Your task to perform on an android device: delete browsing data in the chrome app Image 0: 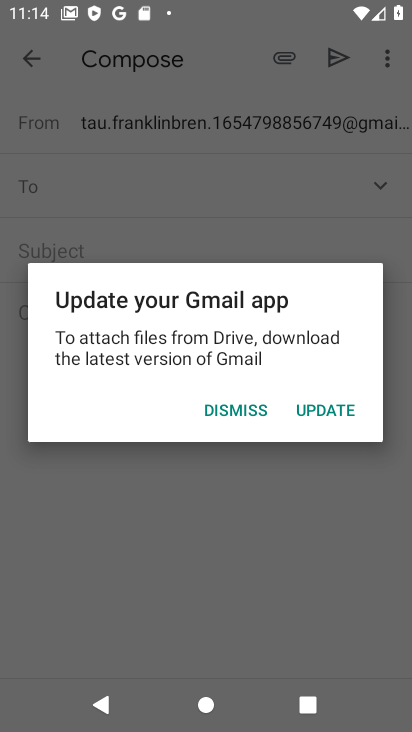
Step 0: click (244, 419)
Your task to perform on an android device: delete browsing data in the chrome app Image 1: 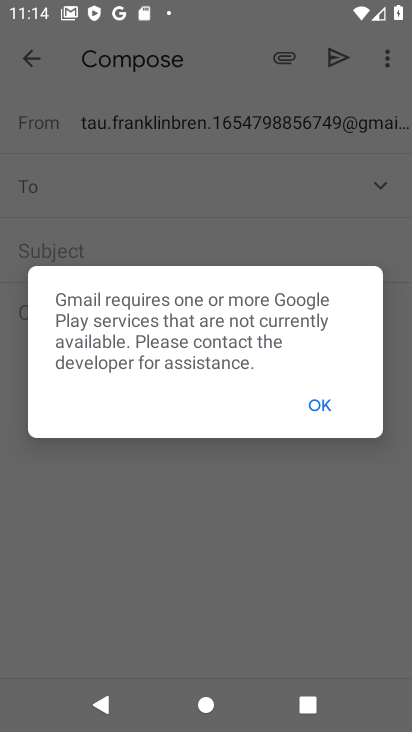
Step 1: click (324, 405)
Your task to perform on an android device: delete browsing data in the chrome app Image 2: 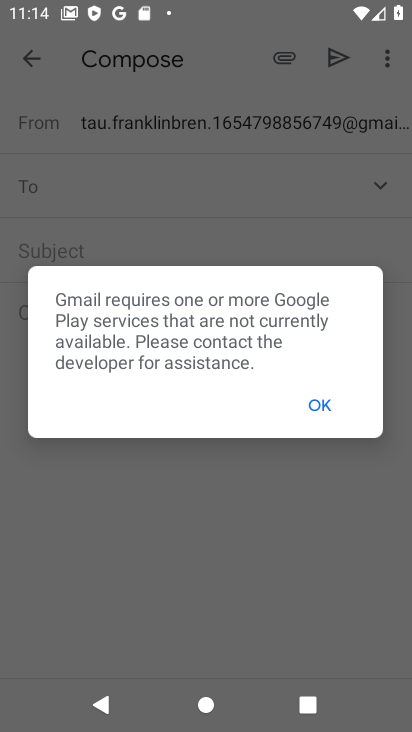
Step 2: click (324, 405)
Your task to perform on an android device: delete browsing data in the chrome app Image 3: 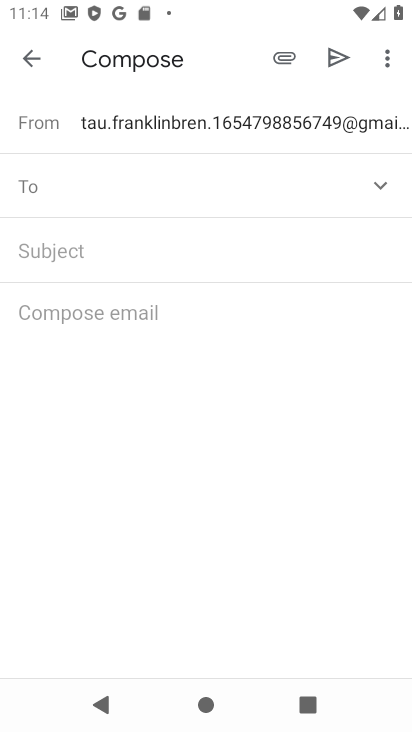
Step 3: click (322, 403)
Your task to perform on an android device: delete browsing data in the chrome app Image 4: 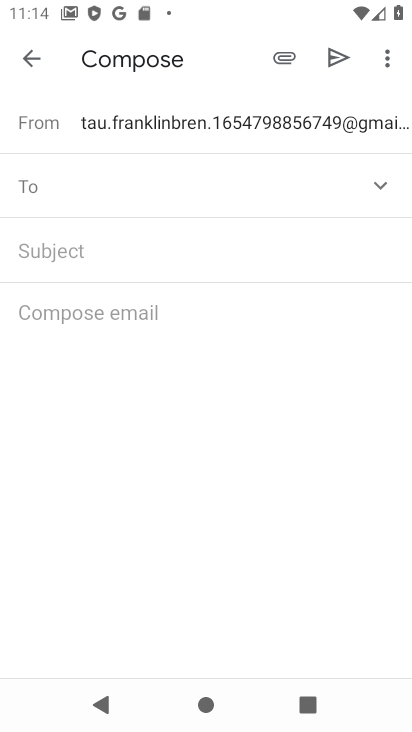
Step 4: click (322, 403)
Your task to perform on an android device: delete browsing data in the chrome app Image 5: 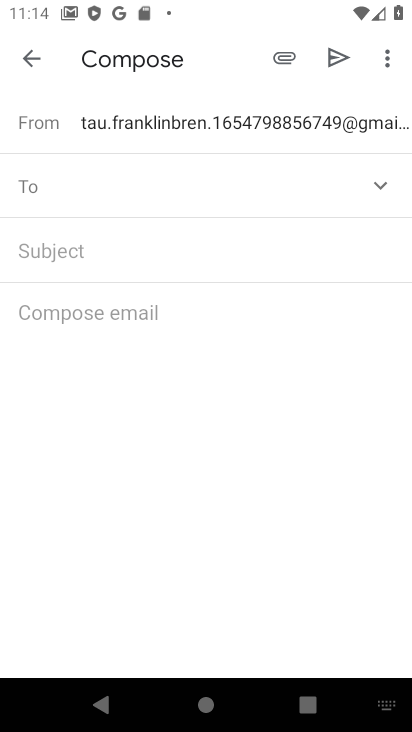
Step 5: click (28, 56)
Your task to perform on an android device: delete browsing data in the chrome app Image 6: 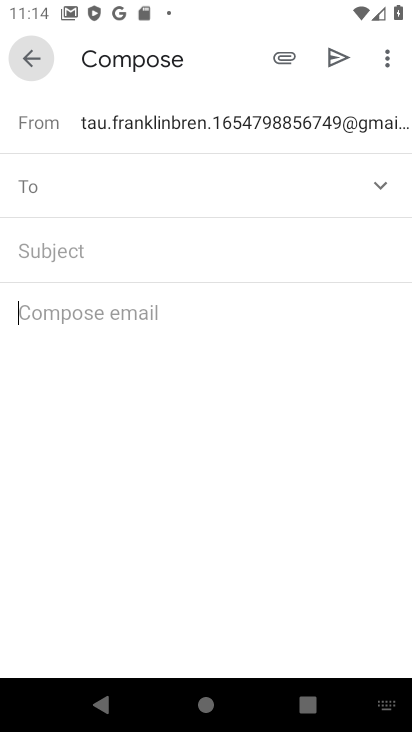
Step 6: click (28, 62)
Your task to perform on an android device: delete browsing data in the chrome app Image 7: 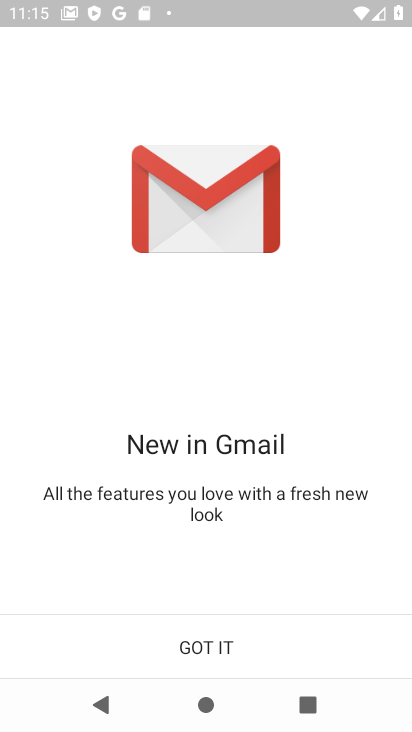
Step 7: press back button
Your task to perform on an android device: delete browsing data in the chrome app Image 8: 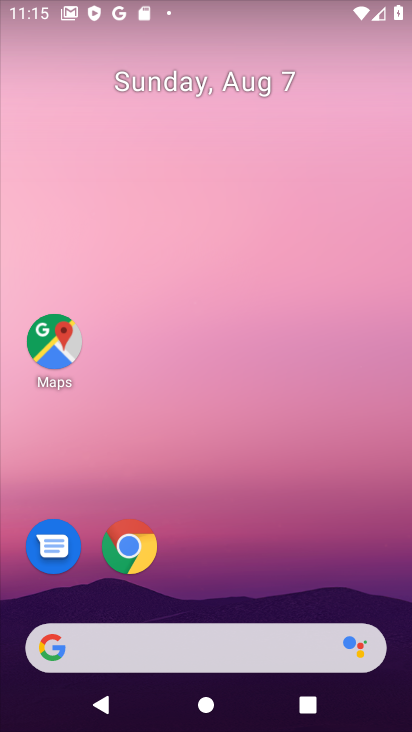
Step 8: drag from (286, 460) to (252, 189)
Your task to perform on an android device: delete browsing data in the chrome app Image 9: 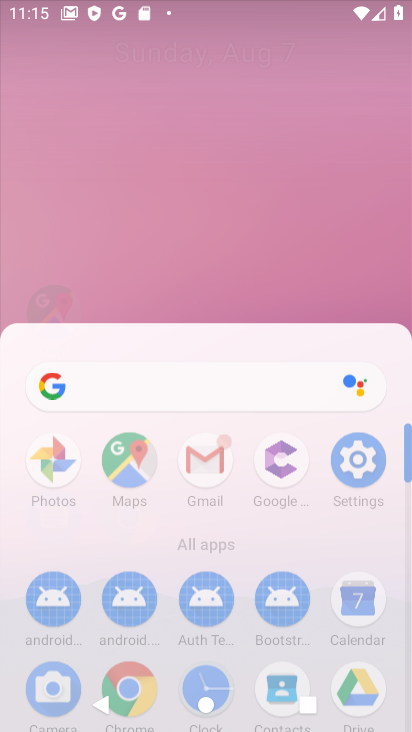
Step 9: drag from (276, 236) to (276, 178)
Your task to perform on an android device: delete browsing data in the chrome app Image 10: 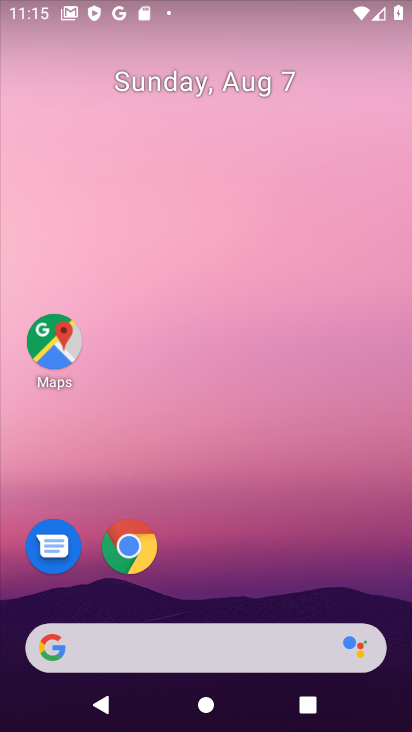
Step 10: drag from (244, 515) to (231, 155)
Your task to perform on an android device: delete browsing data in the chrome app Image 11: 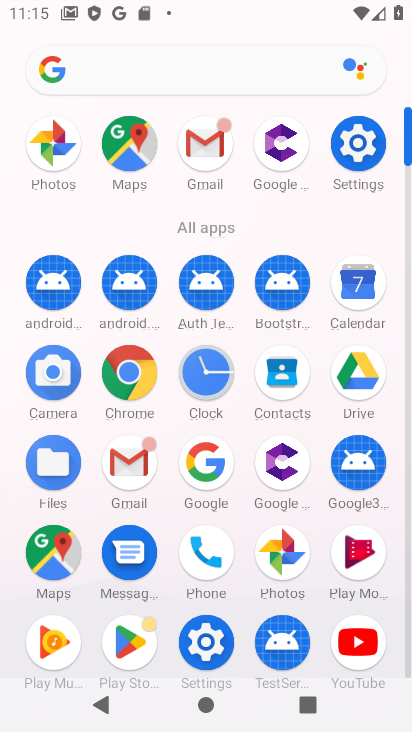
Step 11: click (130, 377)
Your task to perform on an android device: delete browsing data in the chrome app Image 12: 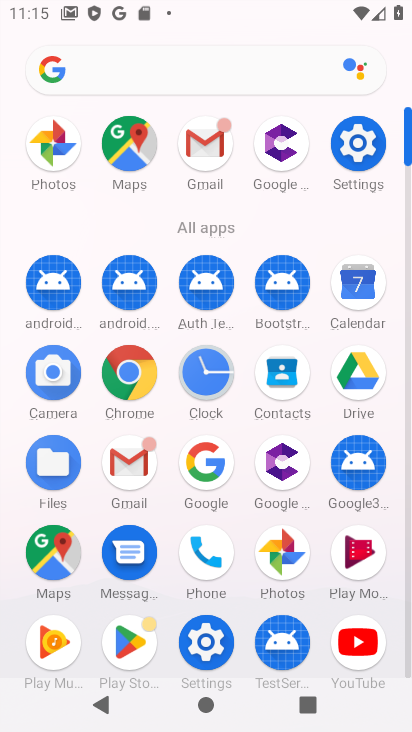
Step 12: click (130, 377)
Your task to perform on an android device: delete browsing data in the chrome app Image 13: 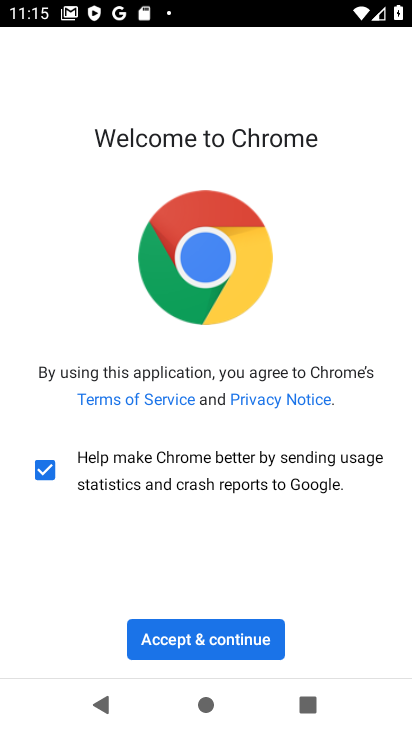
Step 13: click (218, 633)
Your task to perform on an android device: delete browsing data in the chrome app Image 14: 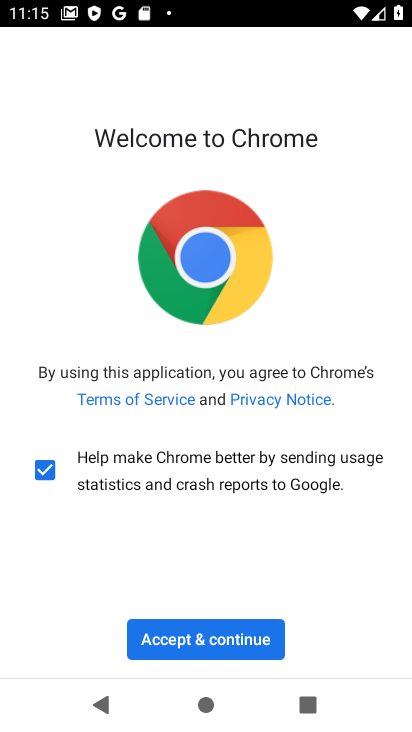
Step 14: click (218, 634)
Your task to perform on an android device: delete browsing data in the chrome app Image 15: 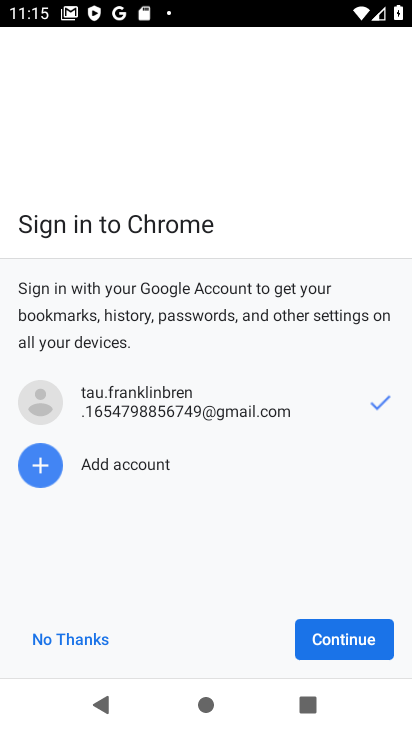
Step 15: click (88, 635)
Your task to perform on an android device: delete browsing data in the chrome app Image 16: 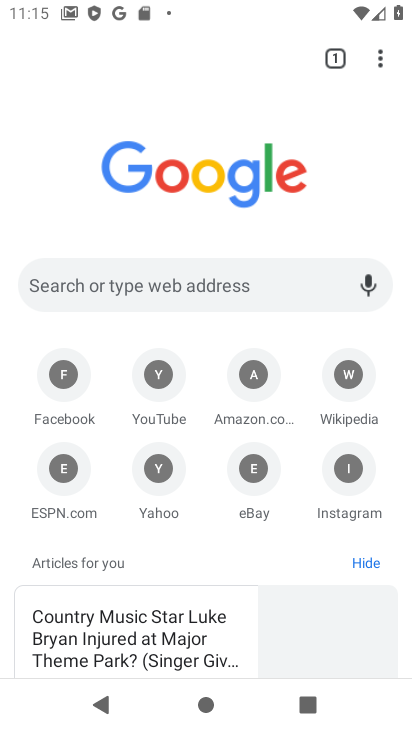
Step 16: click (379, 59)
Your task to perform on an android device: delete browsing data in the chrome app Image 17: 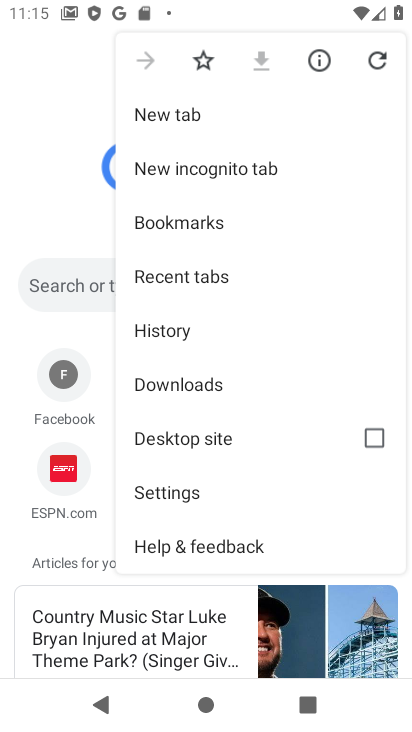
Step 17: click (172, 325)
Your task to perform on an android device: delete browsing data in the chrome app Image 18: 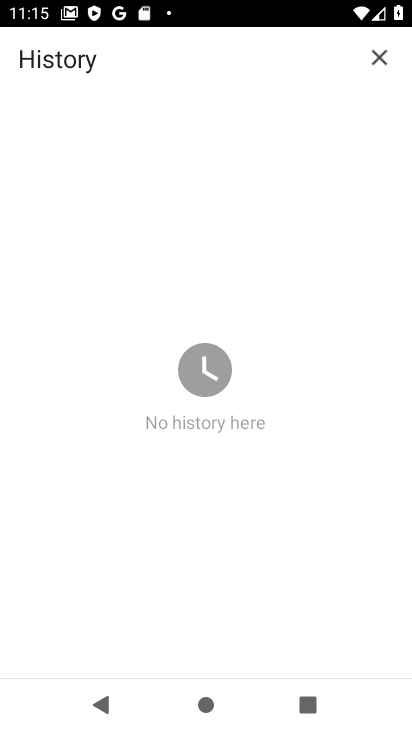
Step 18: task complete